Your task to perform on an android device: Clear the shopping cart on walmart. Image 0: 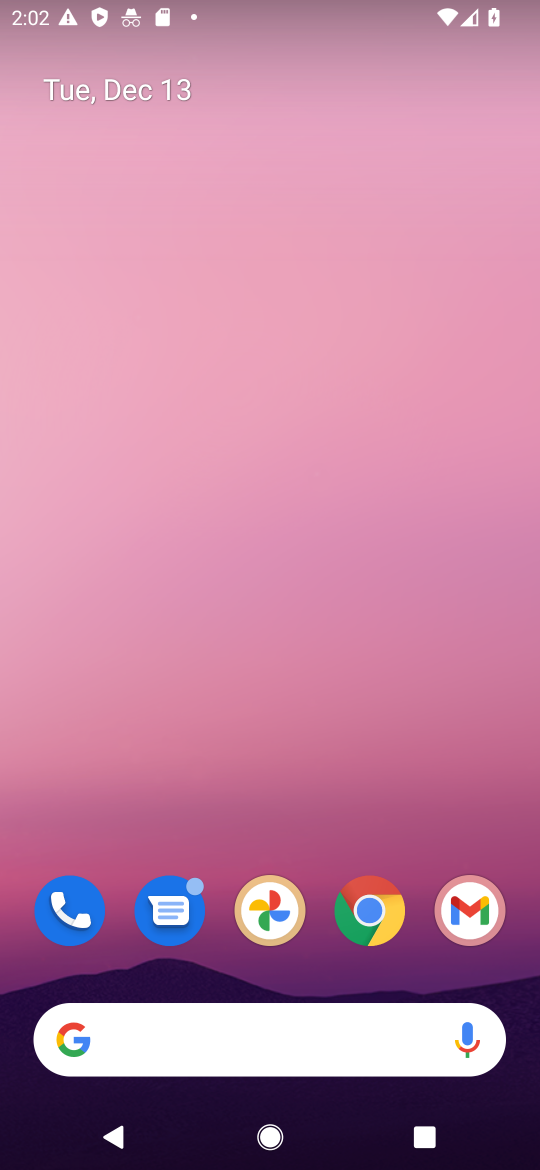
Step 0: click (381, 902)
Your task to perform on an android device: Clear the shopping cart on walmart. Image 1: 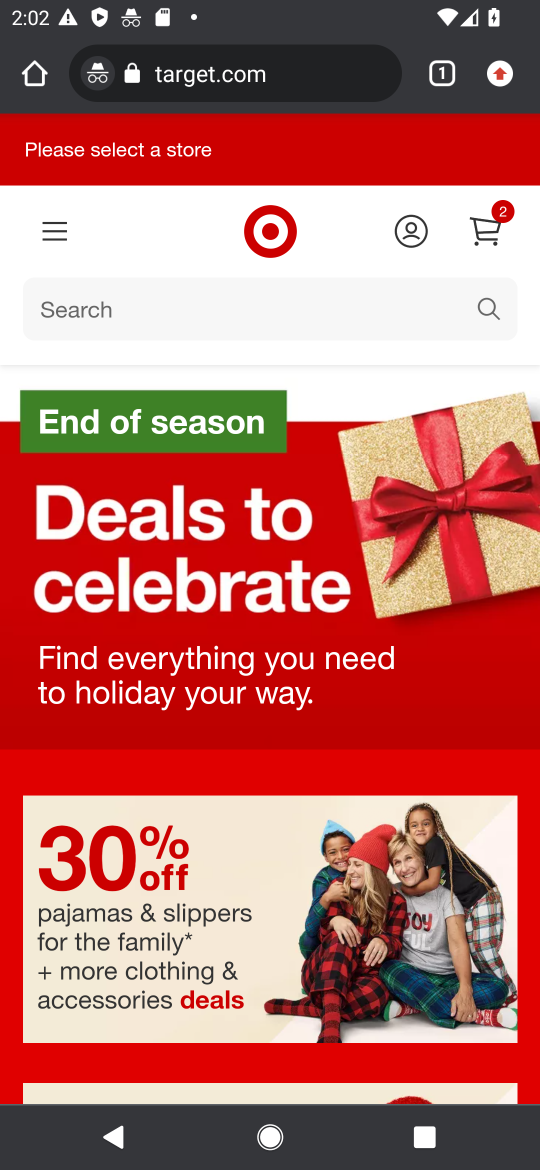
Step 1: click (291, 69)
Your task to perform on an android device: Clear the shopping cart on walmart. Image 2: 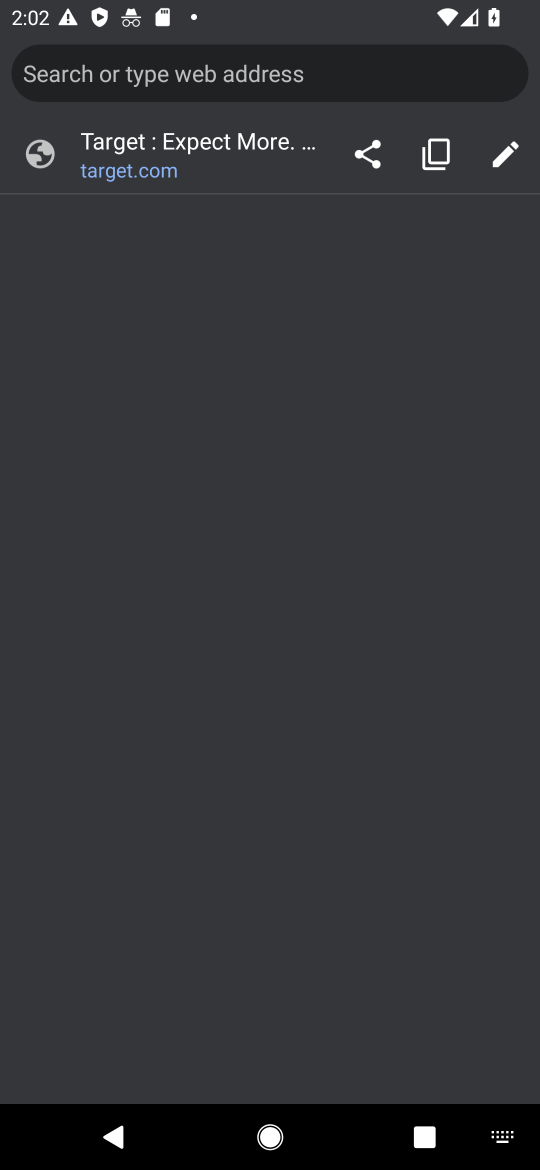
Step 2: type "WALMART"
Your task to perform on an android device: Clear the shopping cart on walmart. Image 3: 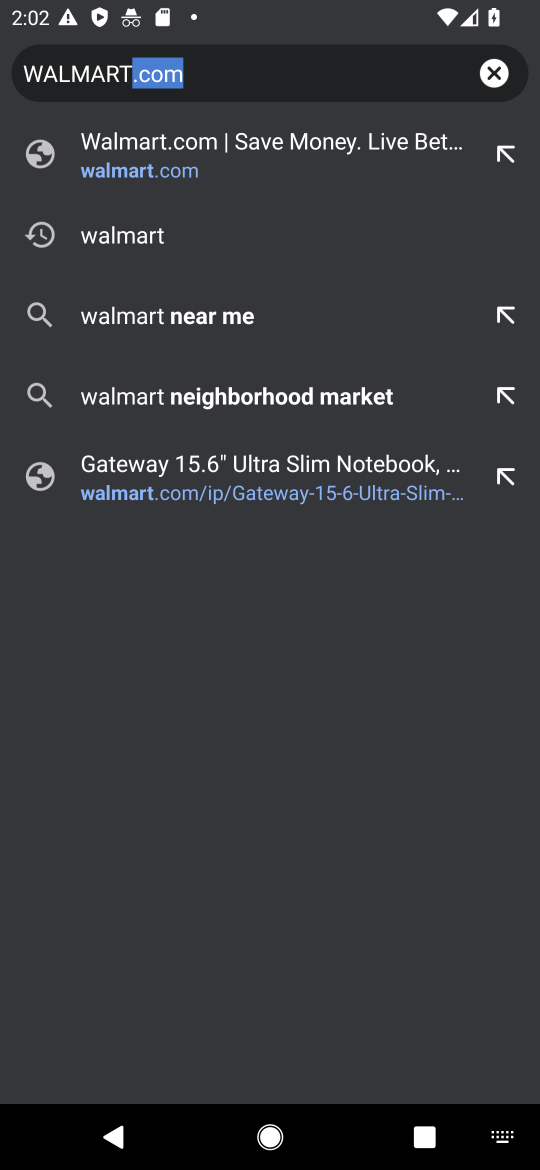
Step 3: click (195, 77)
Your task to perform on an android device: Clear the shopping cart on walmart. Image 4: 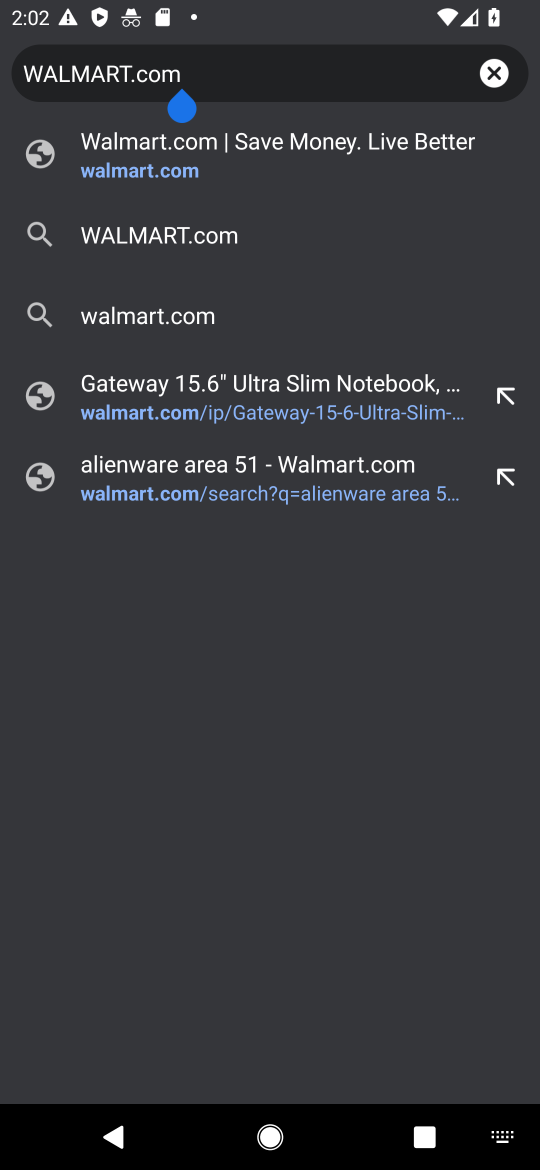
Step 4: click (191, 133)
Your task to perform on an android device: Clear the shopping cart on walmart. Image 5: 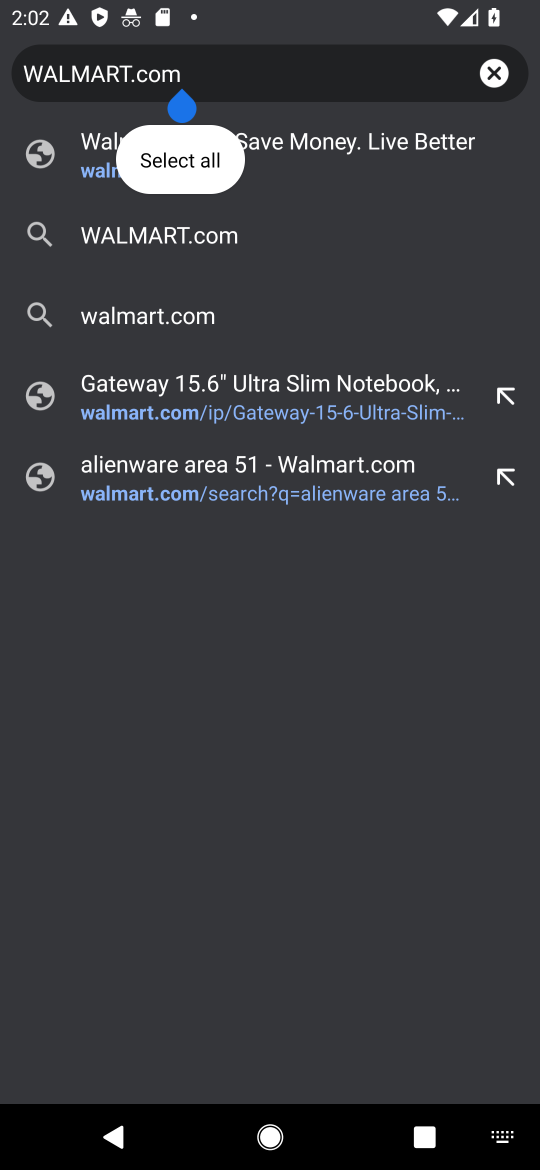
Step 5: click (187, 148)
Your task to perform on an android device: Clear the shopping cart on walmart. Image 6: 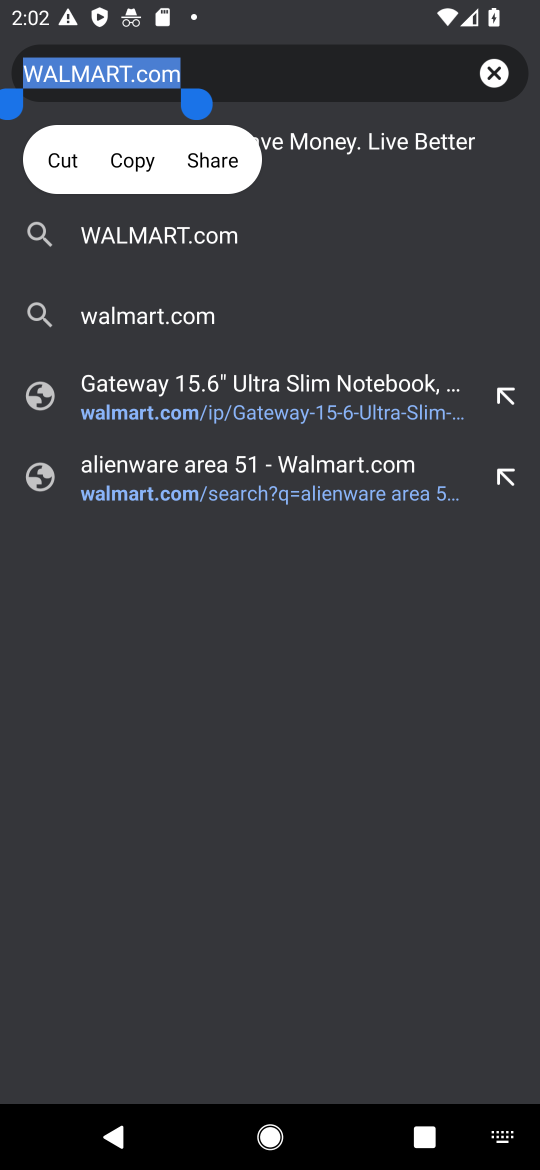
Step 6: click (367, 151)
Your task to perform on an android device: Clear the shopping cart on walmart. Image 7: 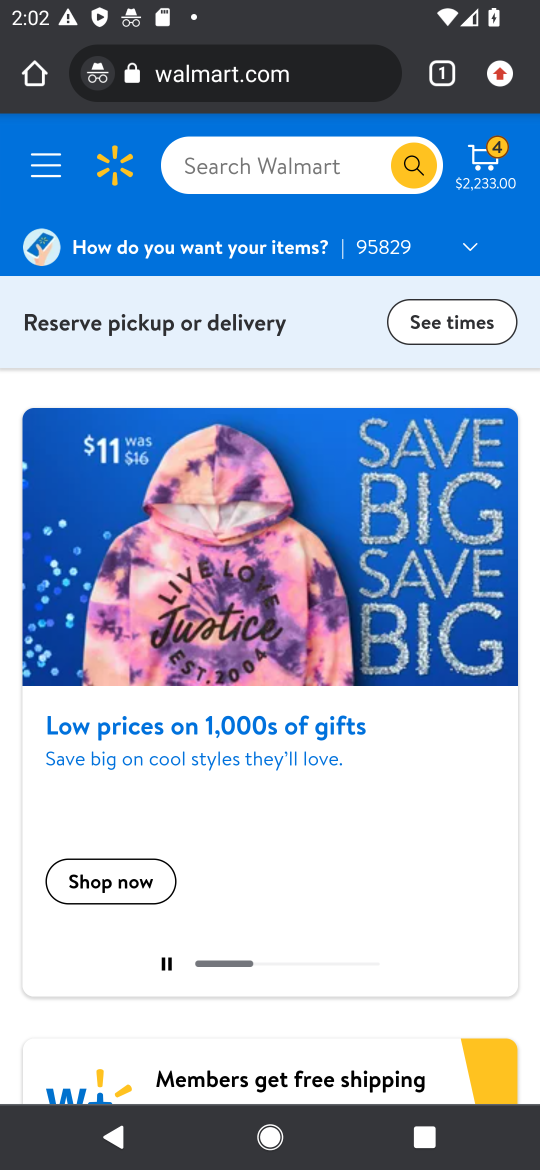
Step 7: click (317, 167)
Your task to perform on an android device: Clear the shopping cart on walmart. Image 8: 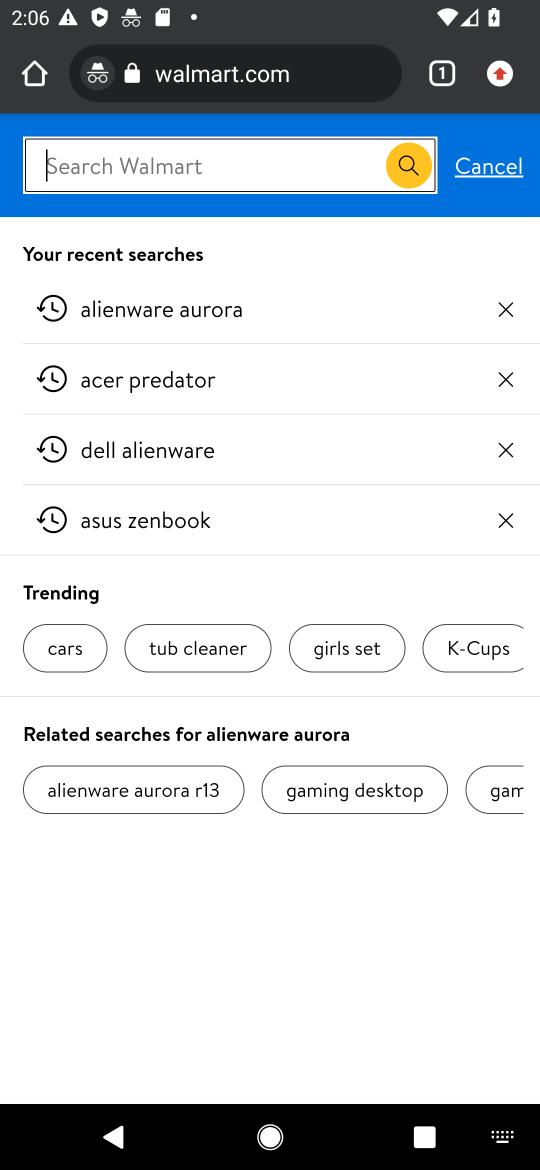
Step 8: task complete